Your task to perform on an android device: Go to Amazon Image 0: 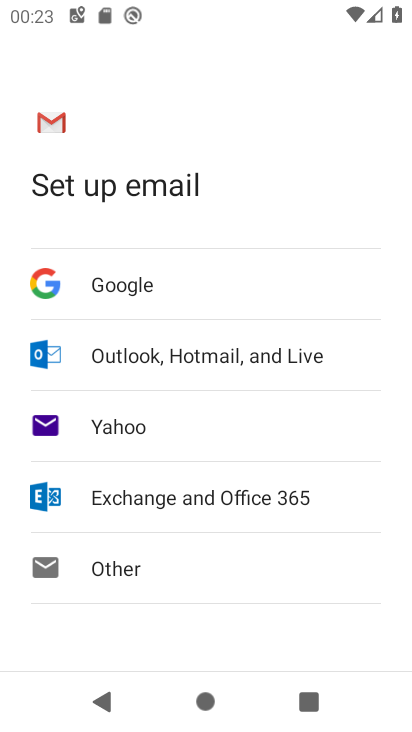
Step 0: press home button
Your task to perform on an android device: Go to Amazon Image 1: 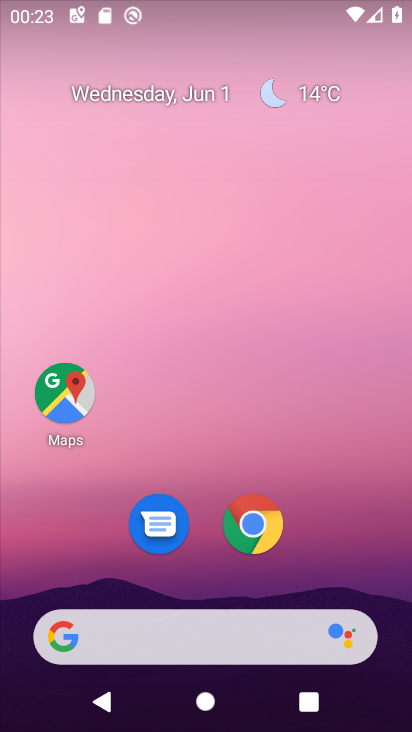
Step 1: drag from (210, 479) to (243, 20)
Your task to perform on an android device: Go to Amazon Image 2: 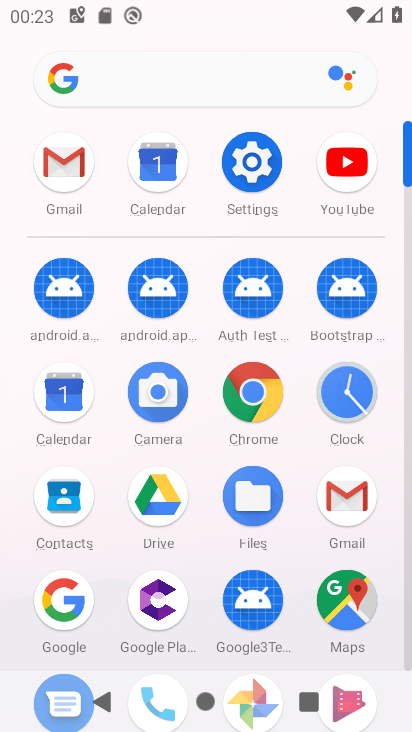
Step 2: click (250, 397)
Your task to perform on an android device: Go to Amazon Image 3: 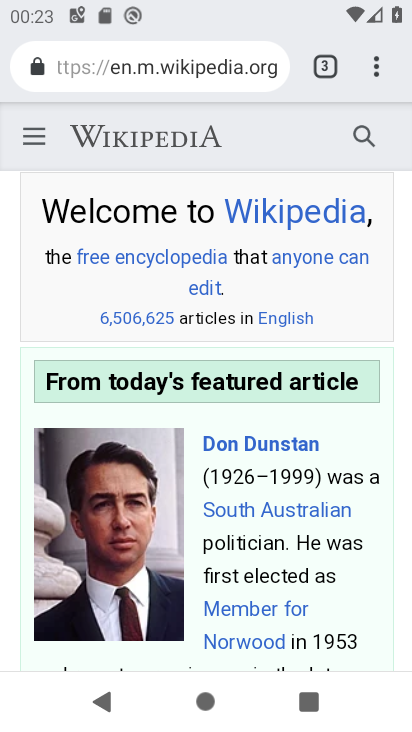
Step 3: click (368, 67)
Your task to perform on an android device: Go to Amazon Image 4: 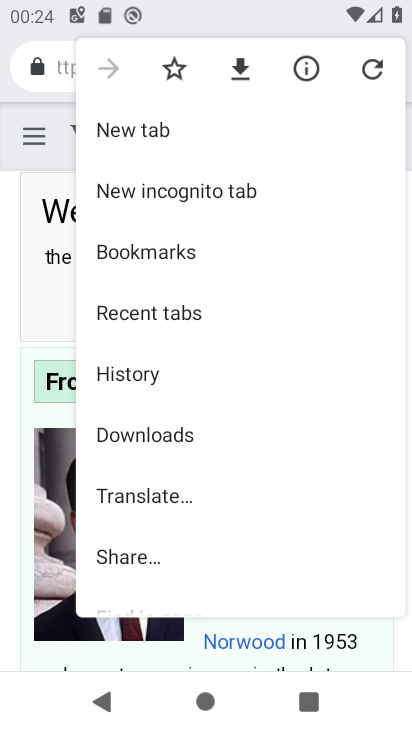
Step 4: click (278, 118)
Your task to perform on an android device: Go to Amazon Image 5: 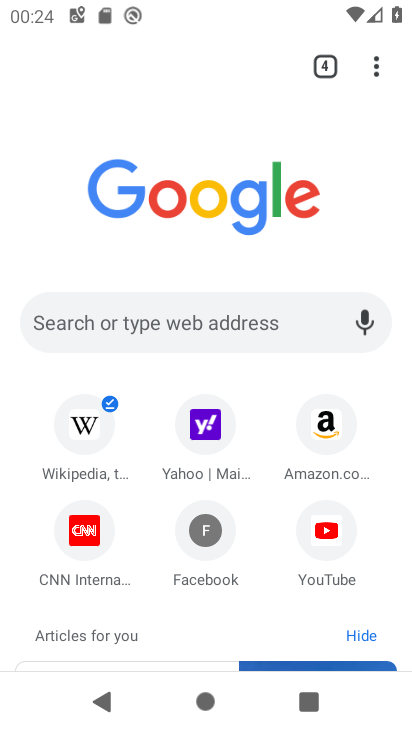
Step 5: click (334, 421)
Your task to perform on an android device: Go to Amazon Image 6: 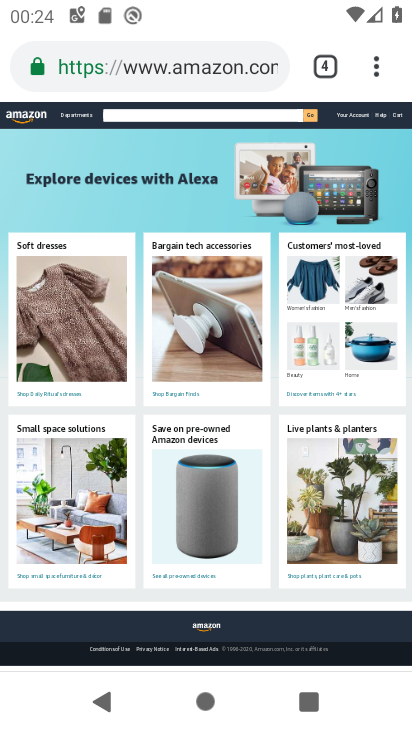
Step 6: task complete